Your task to perform on an android device: Open location settings Image 0: 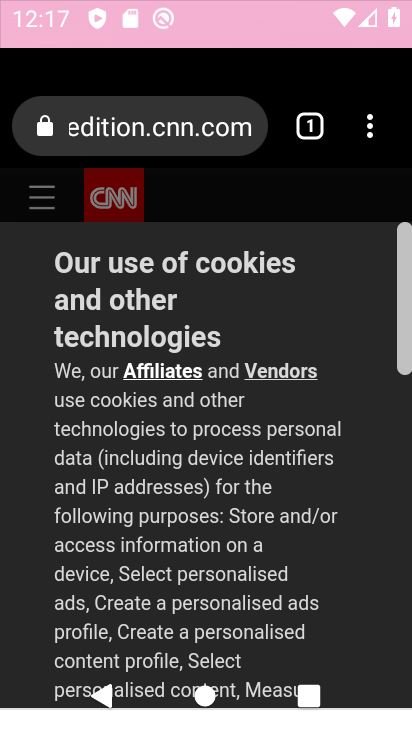
Step 0: press home button
Your task to perform on an android device: Open location settings Image 1: 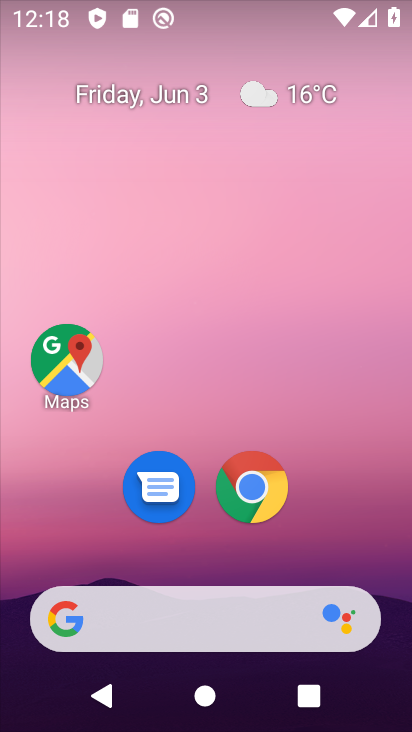
Step 1: drag from (184, 610) to (158, 106)
Your task to perform on an android device: Open location settings Image 2: 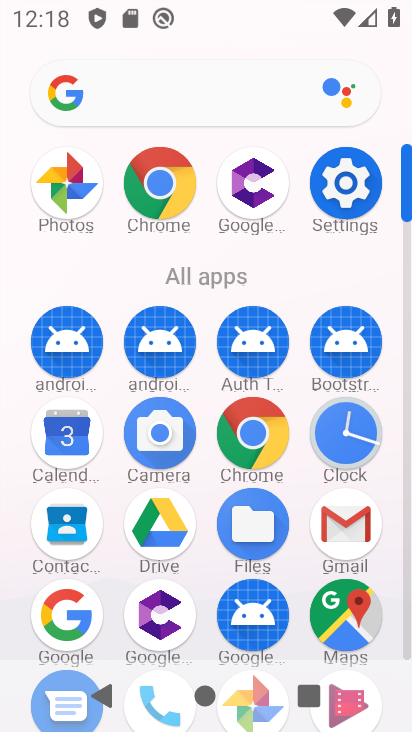
Step 2: click (354, 208)
Your task to perform on an android device: Open location settings Image 3: 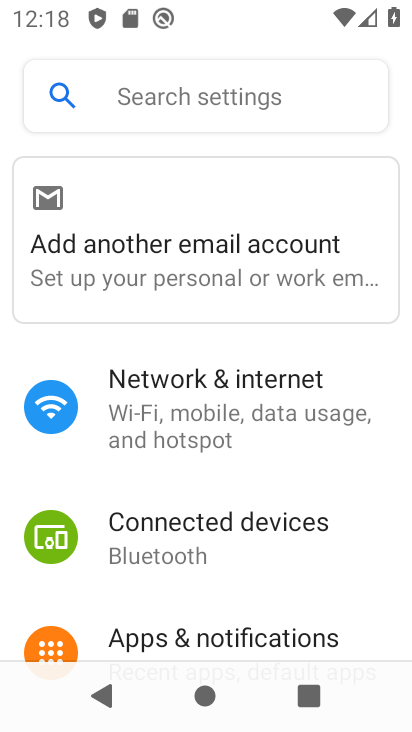
Step 3: drag from (273, 515) to (162, 3)
Your task to perform on an android device: Open location settings Image 4: 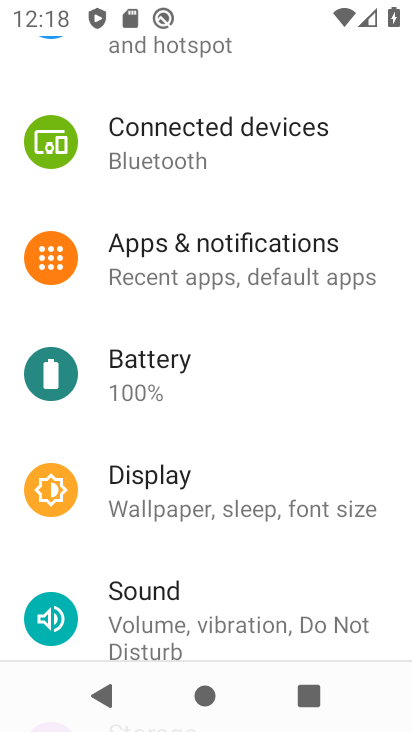
Step 4: drag from (195, 577) to (184, 240)
Your task to perform on an android device: Open location settings Image 5: 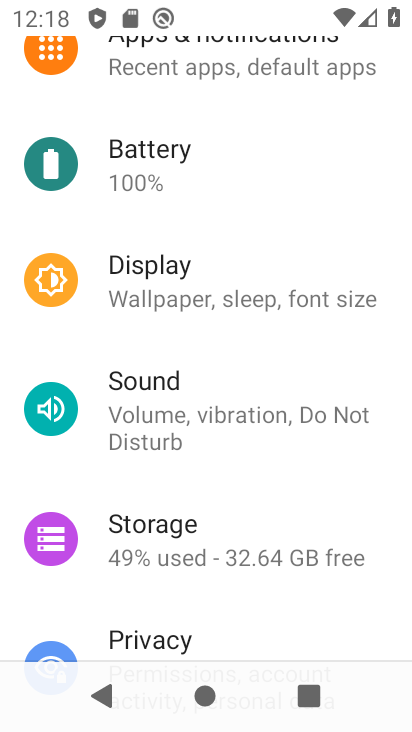
Step 5: drag from (187, 414) to (191, 98)
Your task to perform on an android device: Open location settings Image 6: 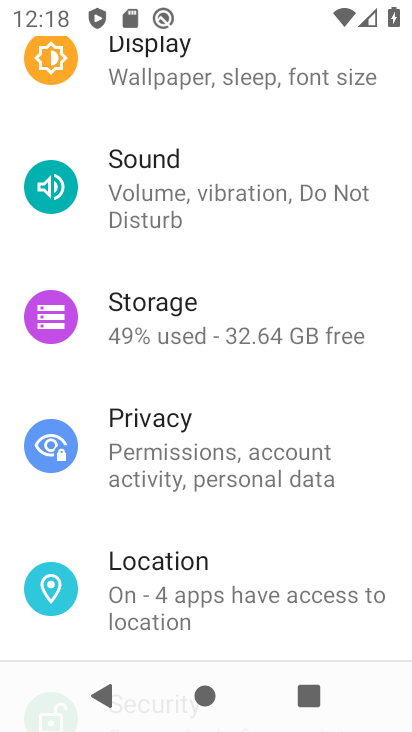
Step 6: click (181, 582)
Your task to perform on an android device: Open location settings Image 7: 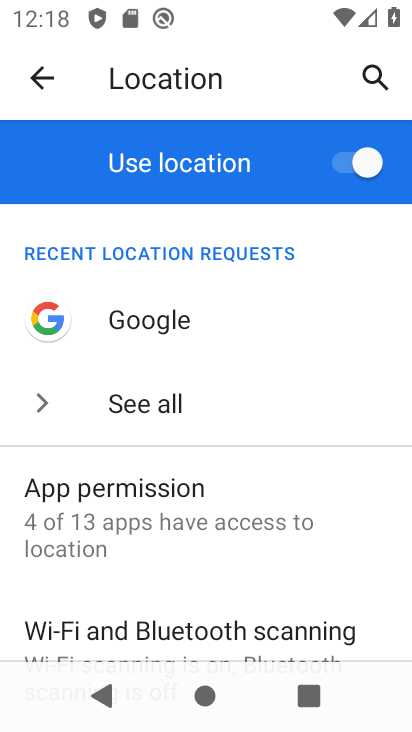
Step 7: task complete